Your task to perform on an android device: Go to wifi settings Image 0: 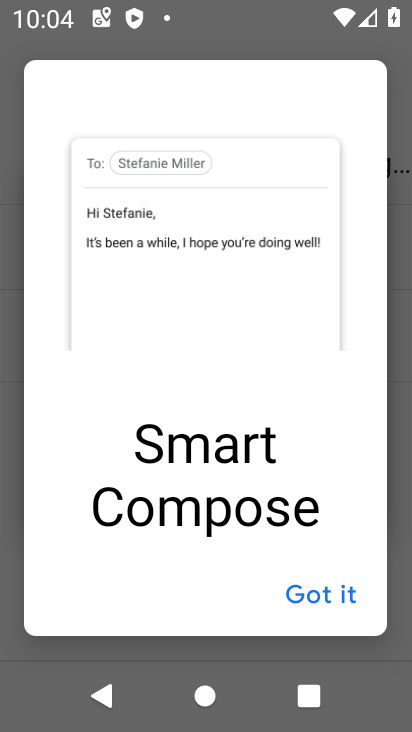
Step 0: press home button
Your task to perform on an android device: Go to wifi settings Image 1: 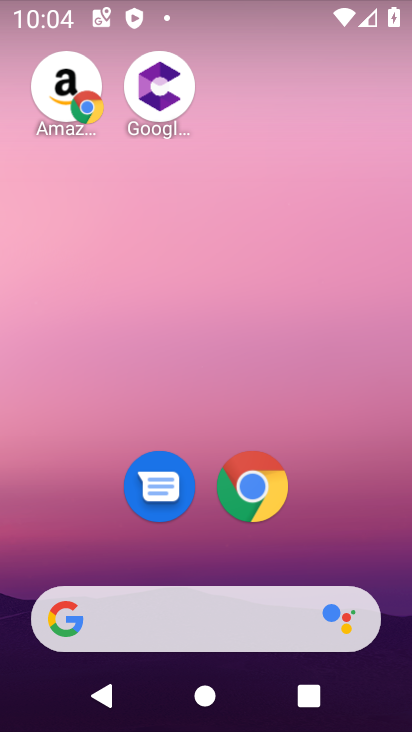
Step 1: drag from (322, 530) to (269, 91)
Your task to perform on an android device: Go to wifi settings Image 2: 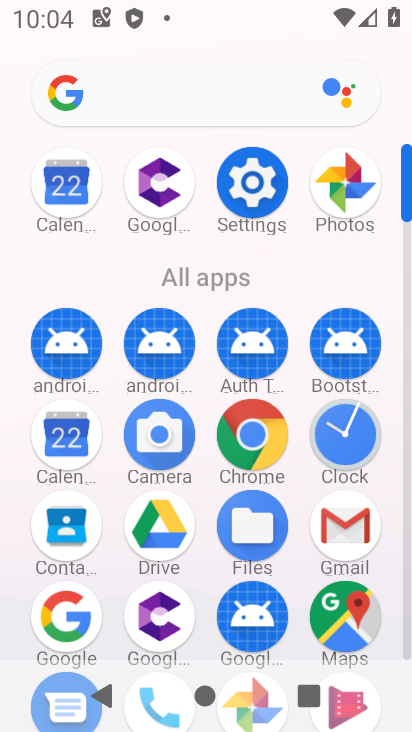
Step 2: click (253, 183)
Your task to perform on an android device: Go to wifi settings Image 3: 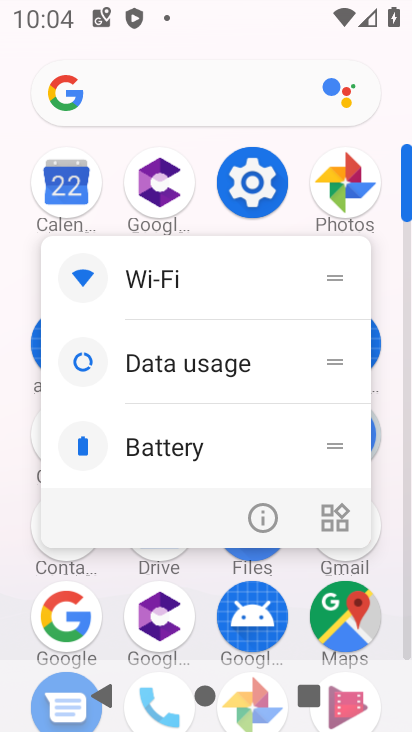
Step 3: click (160, 287)
Your task to perform on an android device: Go to wifi settings Image 4: 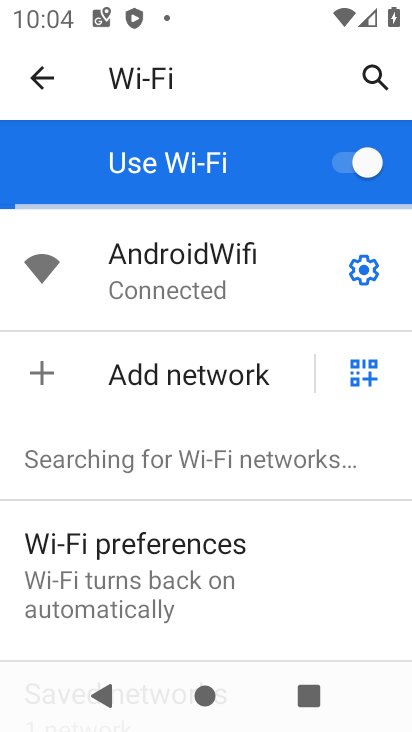
Step 4: click (369, 268)
Your task to perform on an android device: Go to wifi settings Image 5: 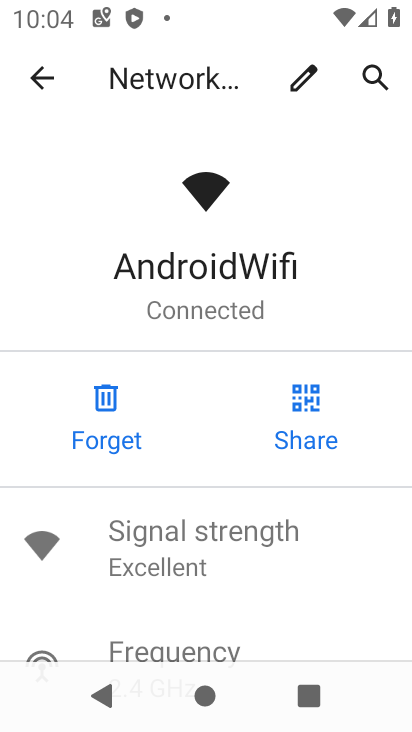
Step 5: task complete